Your task to perform on an android device: change the clock display to show seconds Image 0: 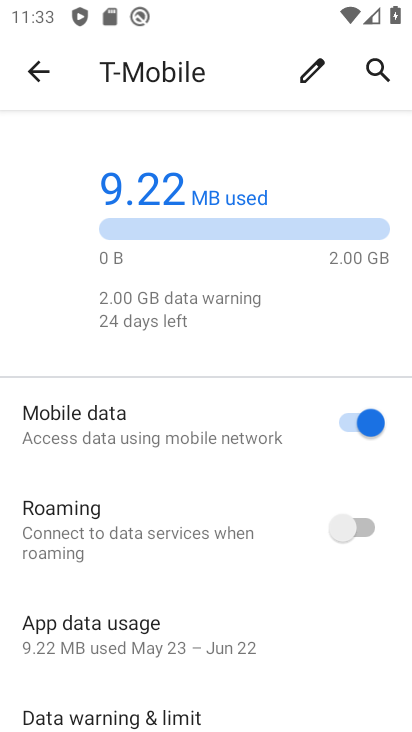
Step 0: press home button
Your task to perform on an android device: change the clock display to show seconds Image 1: 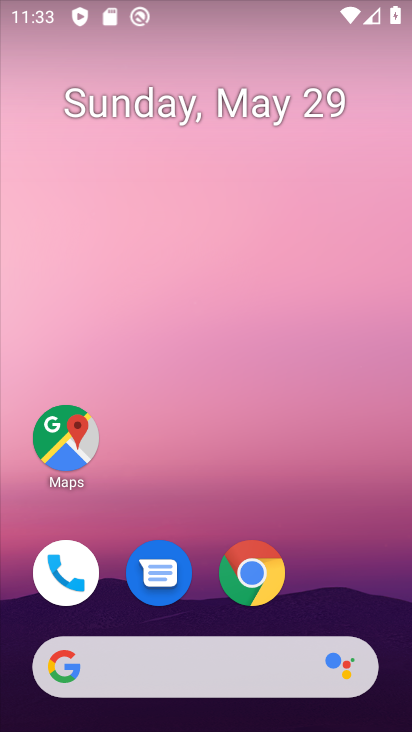
Step 1: drag from (314, 583) to (306, 122)
Your task to perform on an android device: change the clock display to show seconds Image 2: 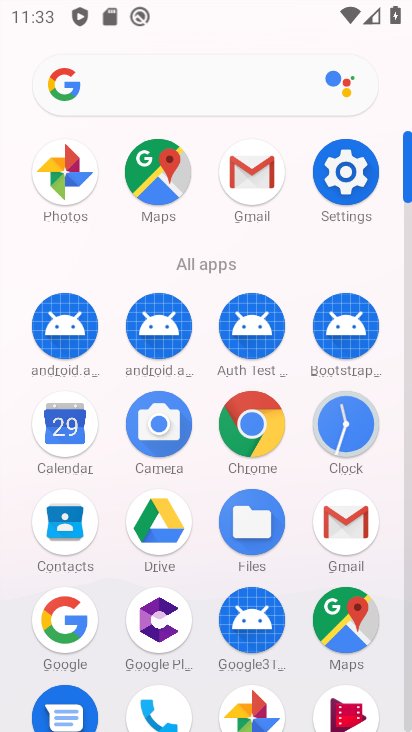
Step 2: click (341, 423)
Your task to perform on an android device: change the clock display to show seconds Image 3: 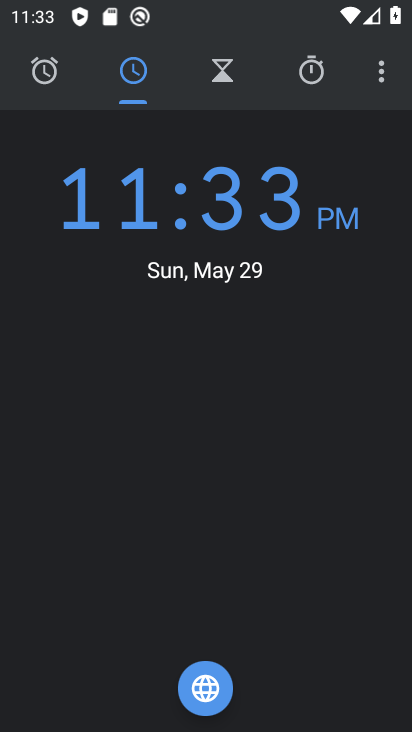
Step 3: click (381, 71)
Your task to perform on an android device: change the clock display to show seconds Image 4: 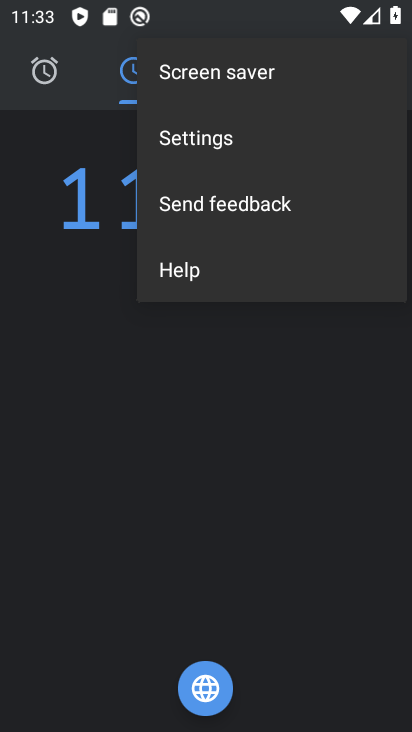
Step 4: click (207, 140)
Your task to perform on an android device: change the clock display to show seconds Image 5: 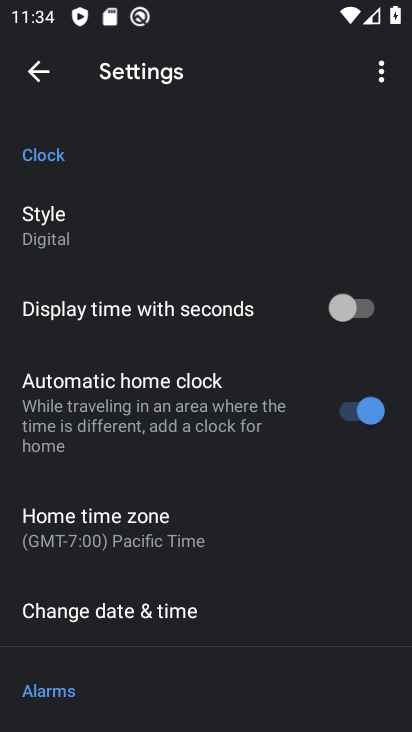
Step 5: click (366, 303)
Your task to perform on an android device: change the clock display to show seconds Image 6: 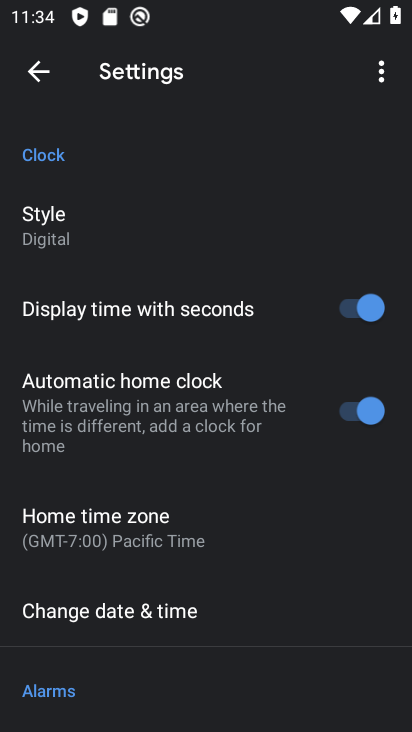
Step 6: task complete